Your task to perform on an android device: remove spam from my inbox in the gmail app Image 0: 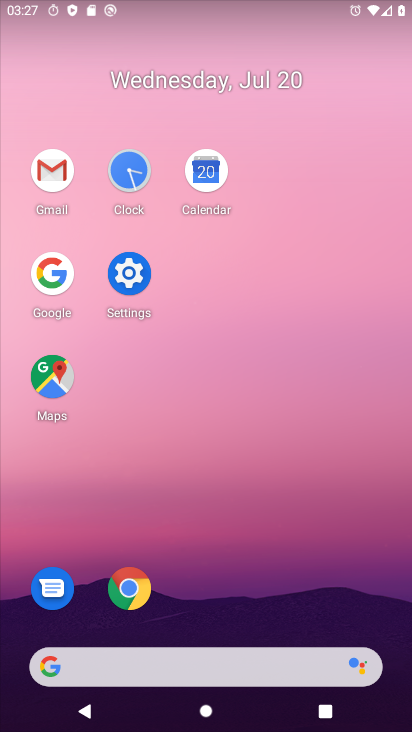
Step 0: click (61, 180)
Your task to perform on an android device: remove spam from my inbox in the gmail app Image 1: 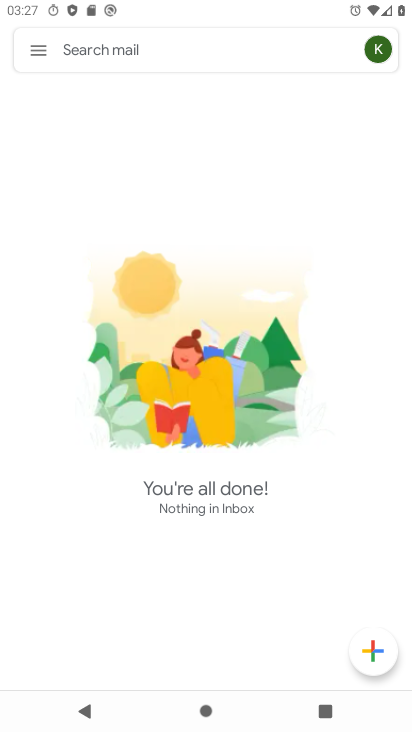
Step 1: click (27, 45)
Your task to perform on an android device: remove spam from my inbox in the gmail app Image 2: 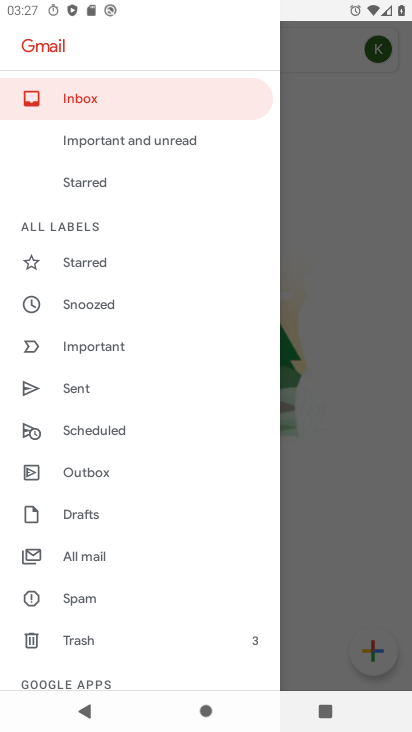
Step 2: click (124, 596)
Your task to perform on an android device: remove spam from my inbox in the gmail app Image 3: 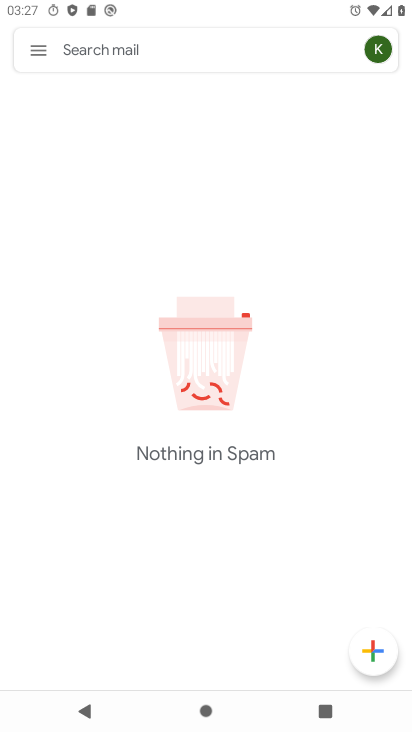
Step 3: task complete